Your task to perform on an android device: toggle javascript in the chrome app Image 0: 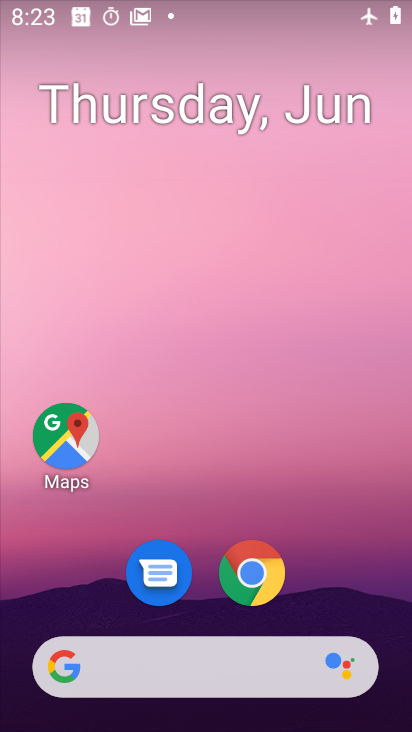
Step 0: click (266, 572)
Your task to perform on an android device: toggle javascript in the chrome app Image 1: 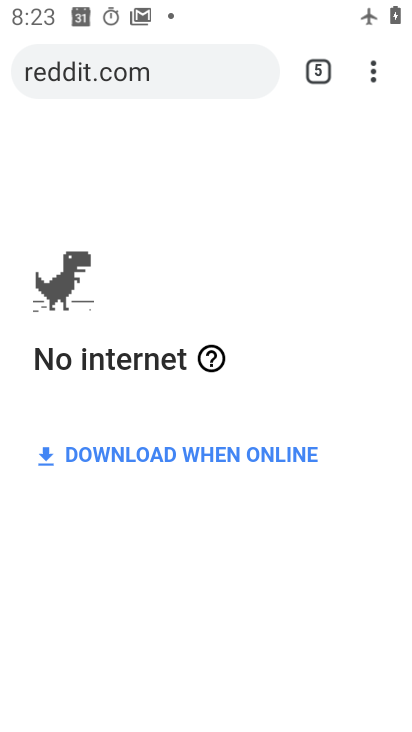
Step 1: click (362, 68)
Your task to perform on an android device: toggle javascript in the chrome app Image 2: 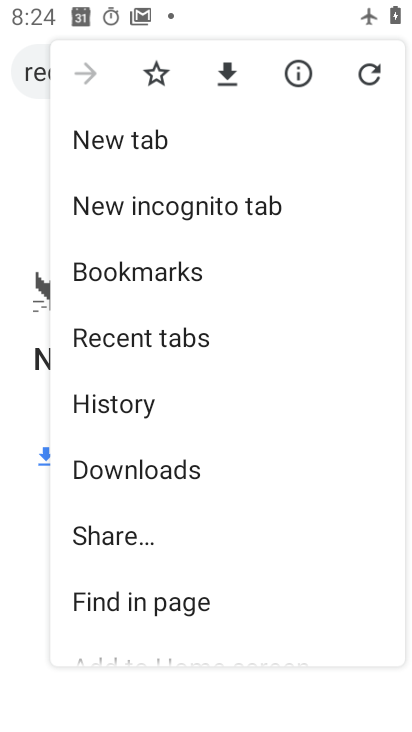
Step 2: drag from (163, 511) to (199, 273)
Your task to perform on an android device: toggle javascript in the chrome app Image 3: 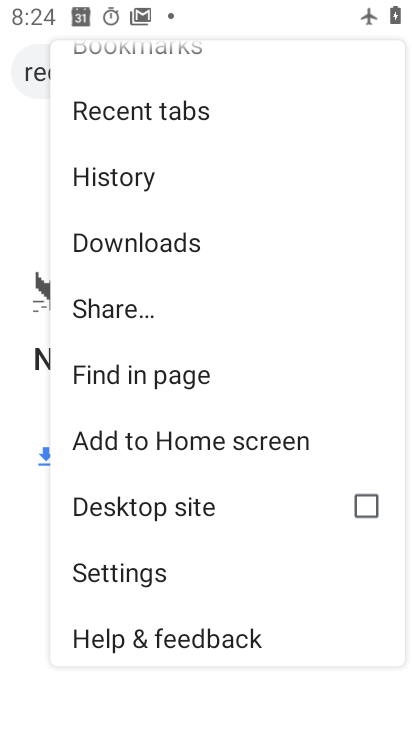
Step 3: click (136, 572)
Your task to perform on an android device: toggle javascript in the chrome app Image 4: 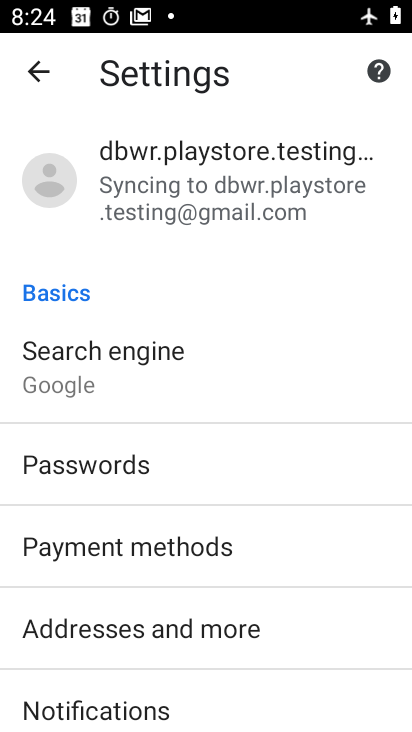
Step 4: drag from (156, 615) to (266, 247)
Your task to perform on an android device: toggle javascript in the chrome app Image 5: 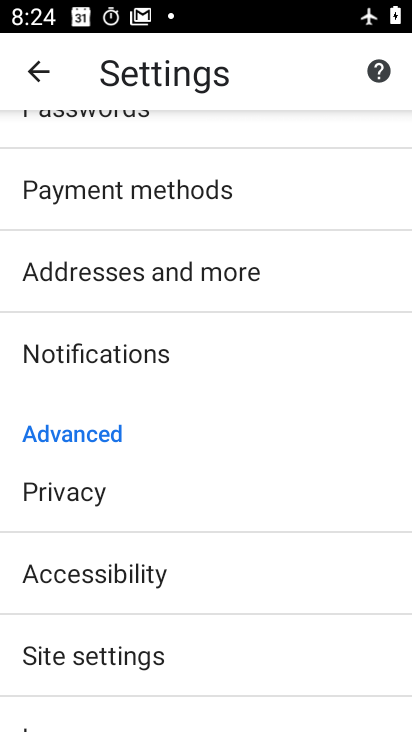
Step 5: drag from (100, 654) to (213, 297)
Your task to perform on an android device: toggle javascript in the chrome app Image 6: 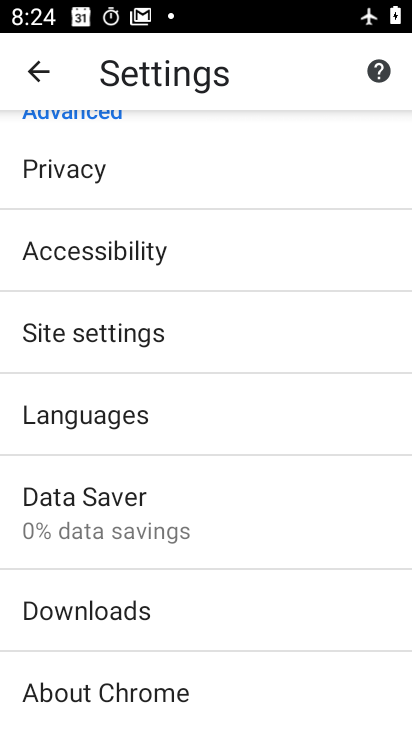
Step 6: click (130, 360)
Your task to perform on an android device: toggle javascript in the chrome app Image 7: 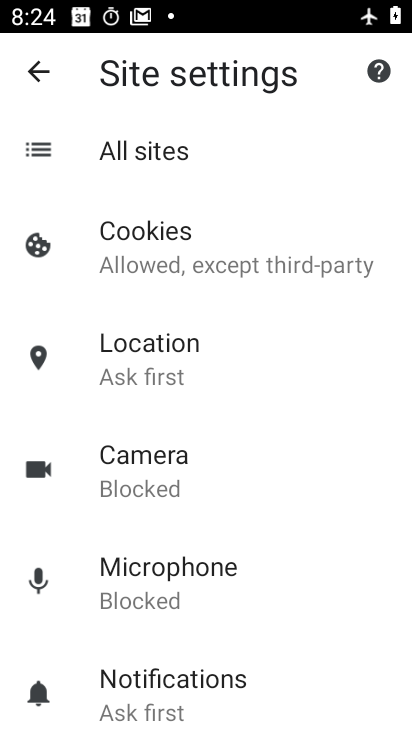
Step 7: drag from (183, 638) to (268, 385)
Your task to perform on an android device: toggle javascript in the chrome app Image 8: 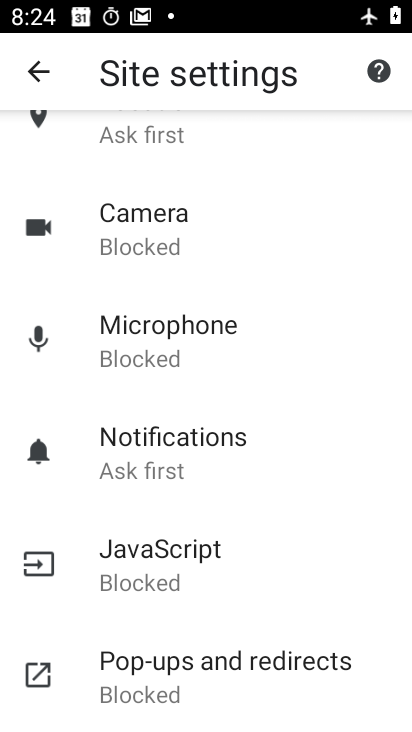
Step 8: click (200, 558)
Your task to perform on an android device: toggle javascript in the chrome app Image 9: 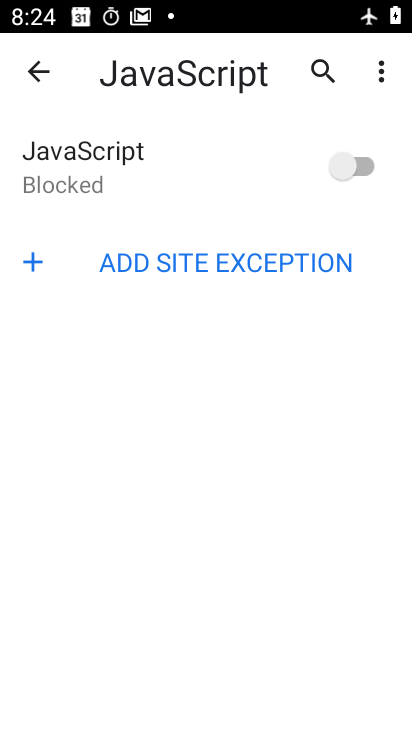
Step 9: click (343, 160)
Your task to perform on an android device: toggle javascript in the chrome app Image 10: 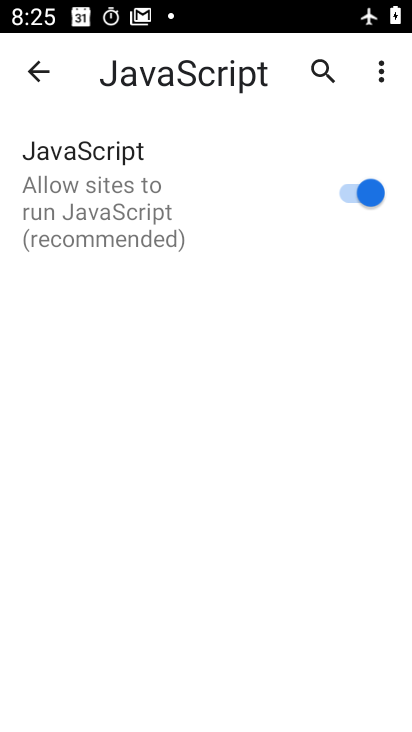
Step 10: task complete